Your task to perform on an android device: open app "Messages" (install if not already installed) and go to login screen Image 0: 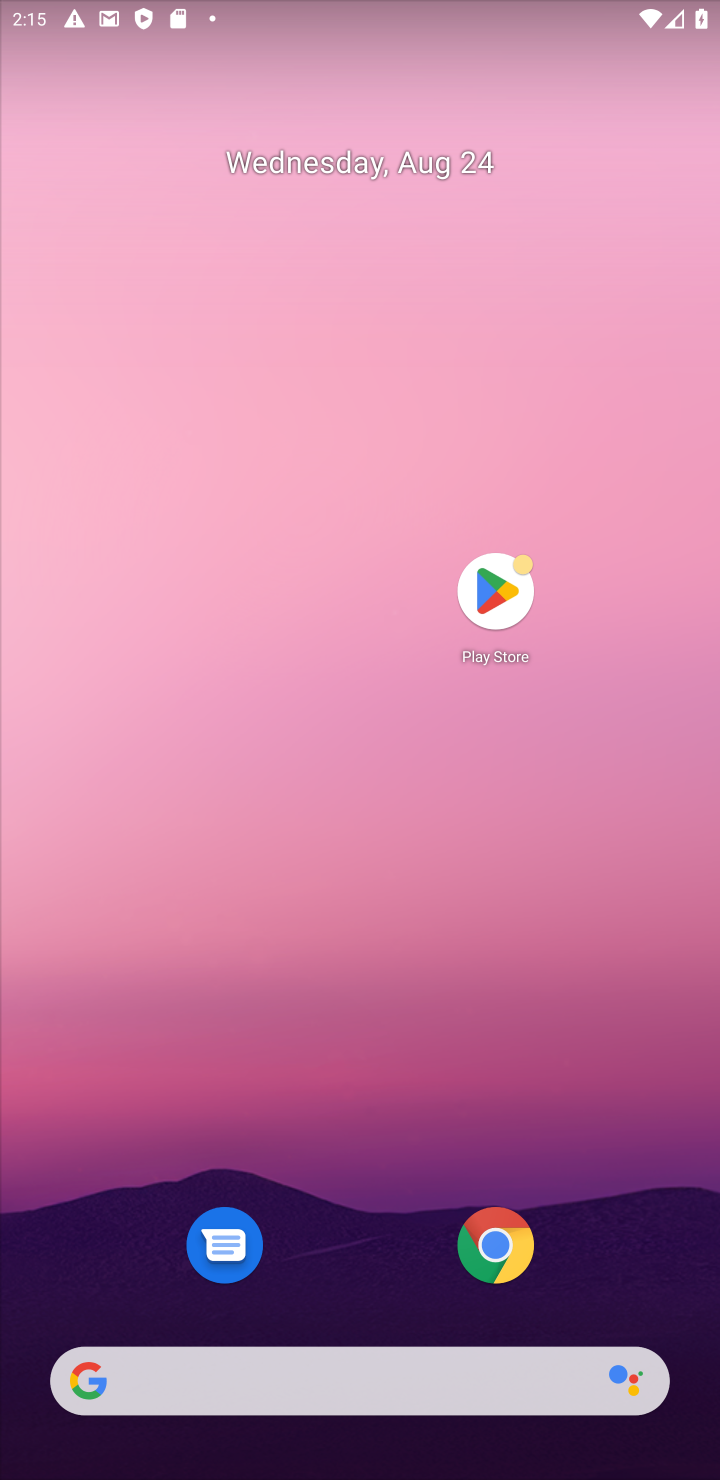
Step 0: click (475, 592)
Your task to perform on an android device: open app "Messages" (install if not already installed) and go to login screen Image 1: 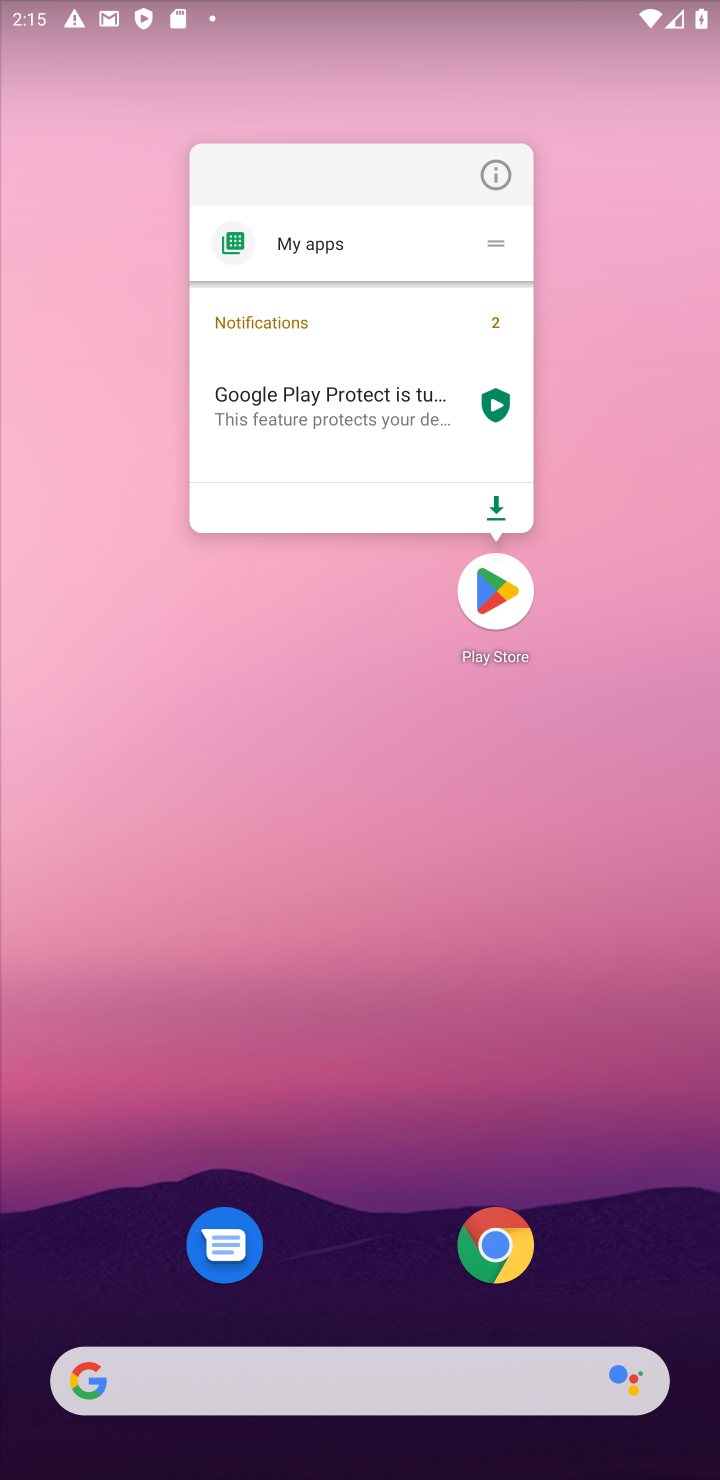
Step 1: click (495, 592)
Your task to perform on an android device: open app "Messages" (install if not already installed) and go to login screen Image 2: 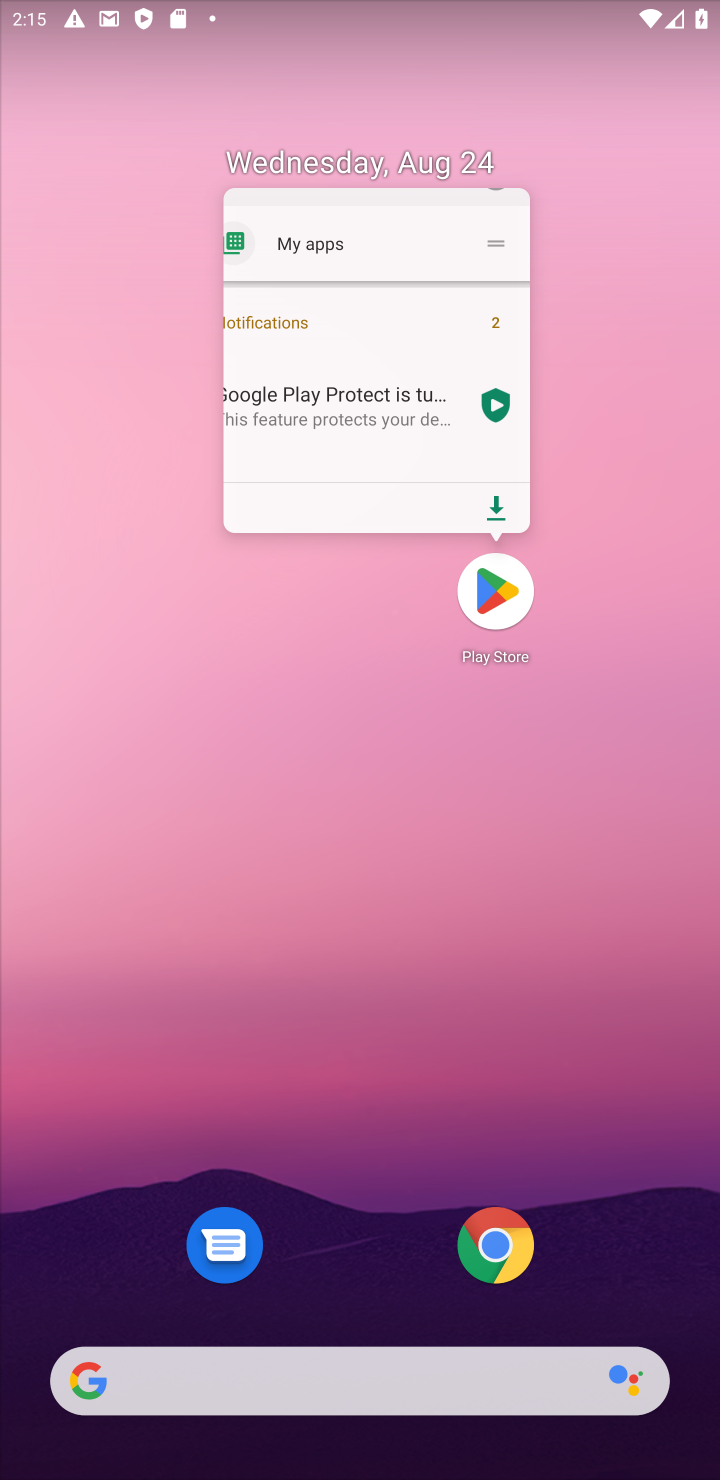
Step 2: click (495, 595)
Your task to perform on an android device: open app "Messages" (install if not already installed) and go to login screen Image 3: 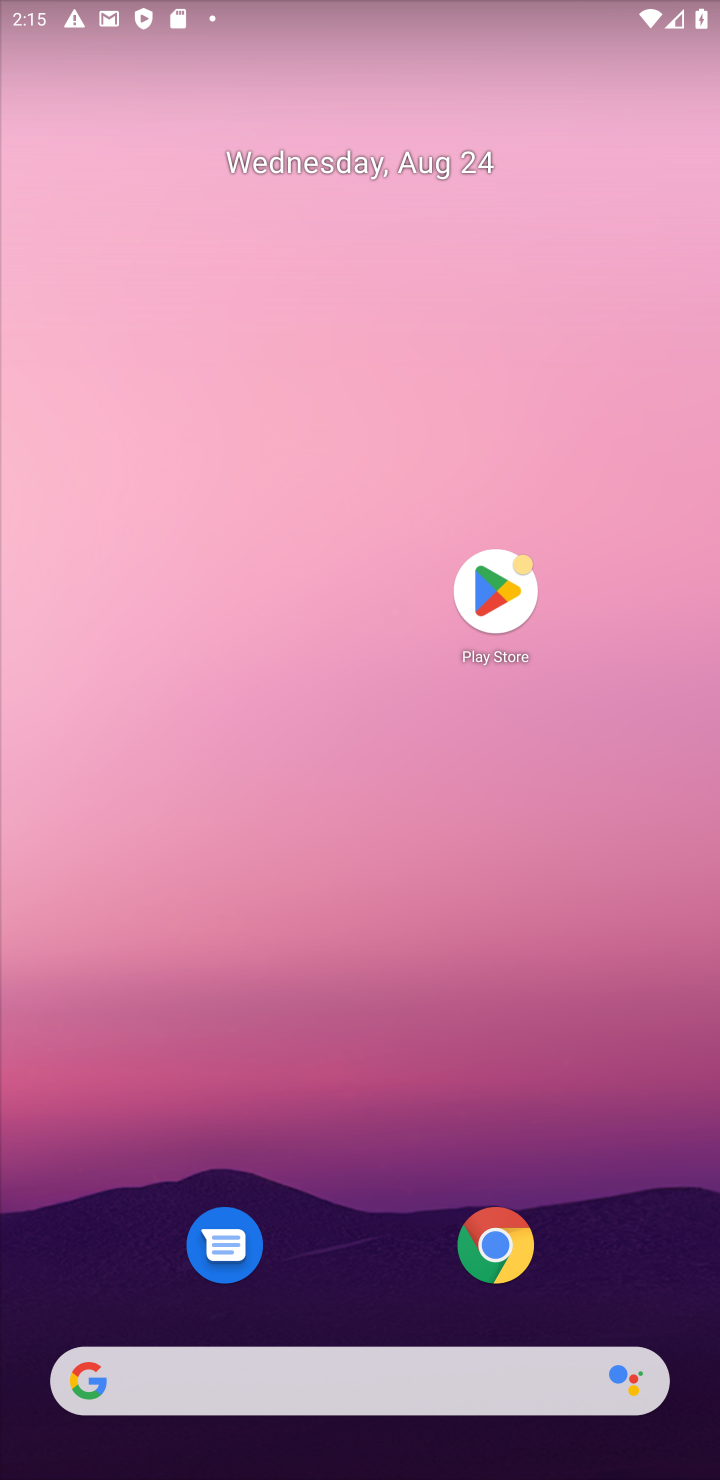
Step 3: click (495, 595)
Your task to perform on an android device: open app "Messages" (install if not already installed) and go to login screen Image 4: 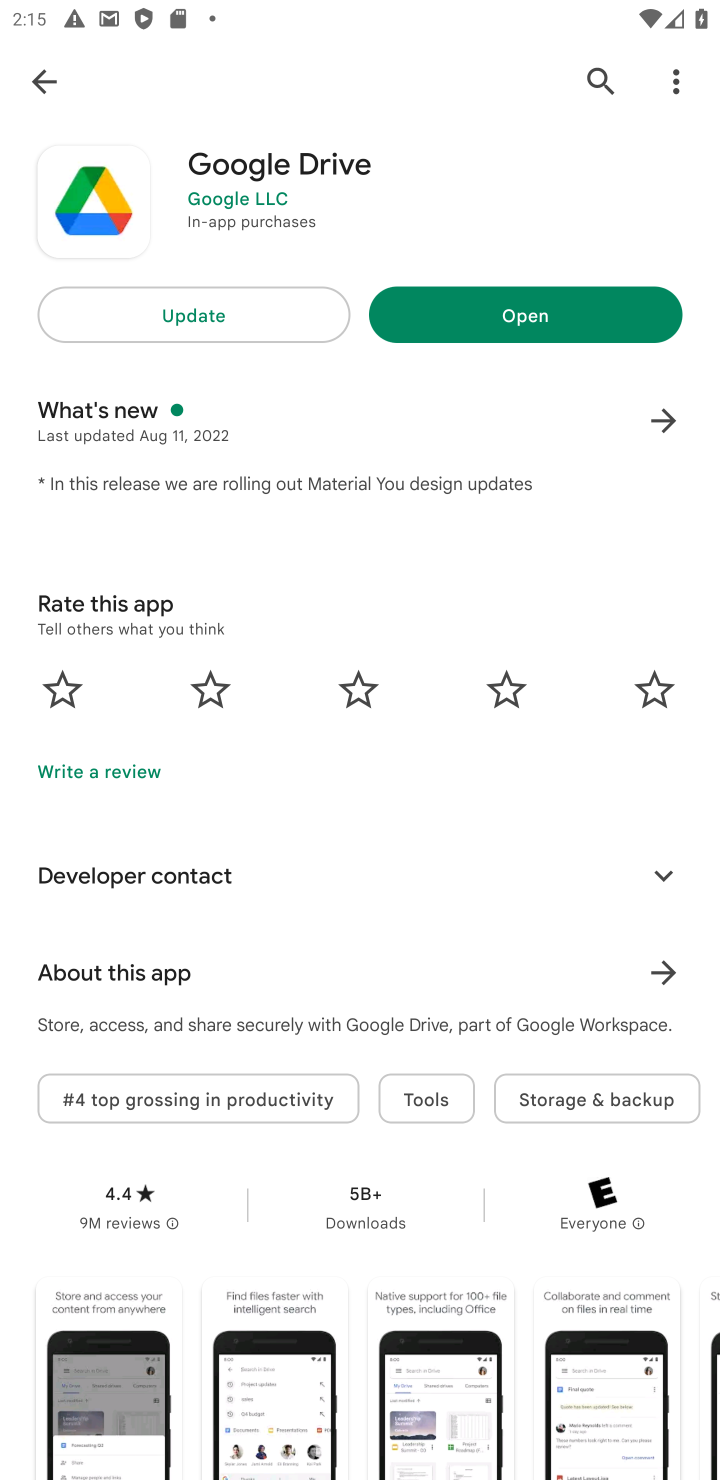
Step 4: click (602, 73)
Your task to perform on an android device: open app "Messages" (install if not already installed) and go to login screen Image 5: 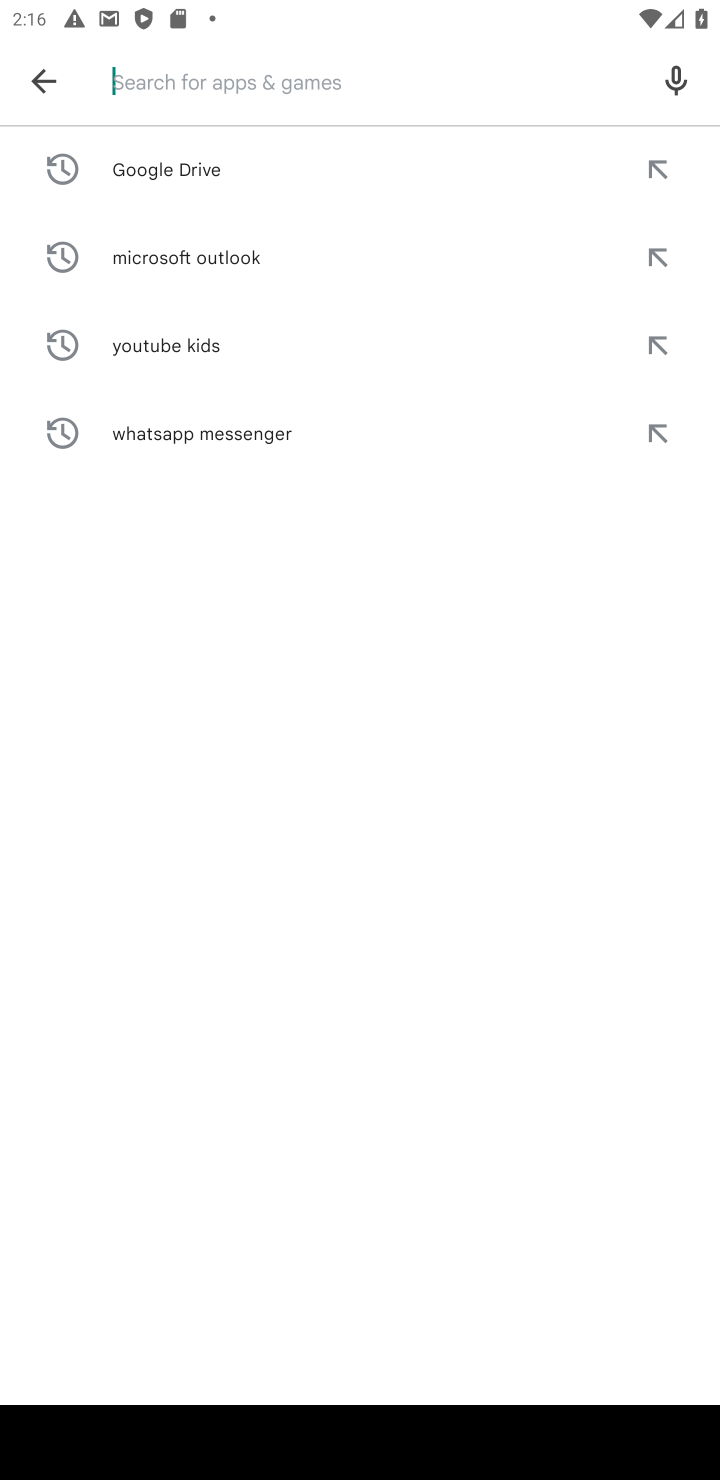
Step 5: type "Messages"
Your task to perform on an android device: open app "Messages" (install if not already installed) and go to login screen Image 6: 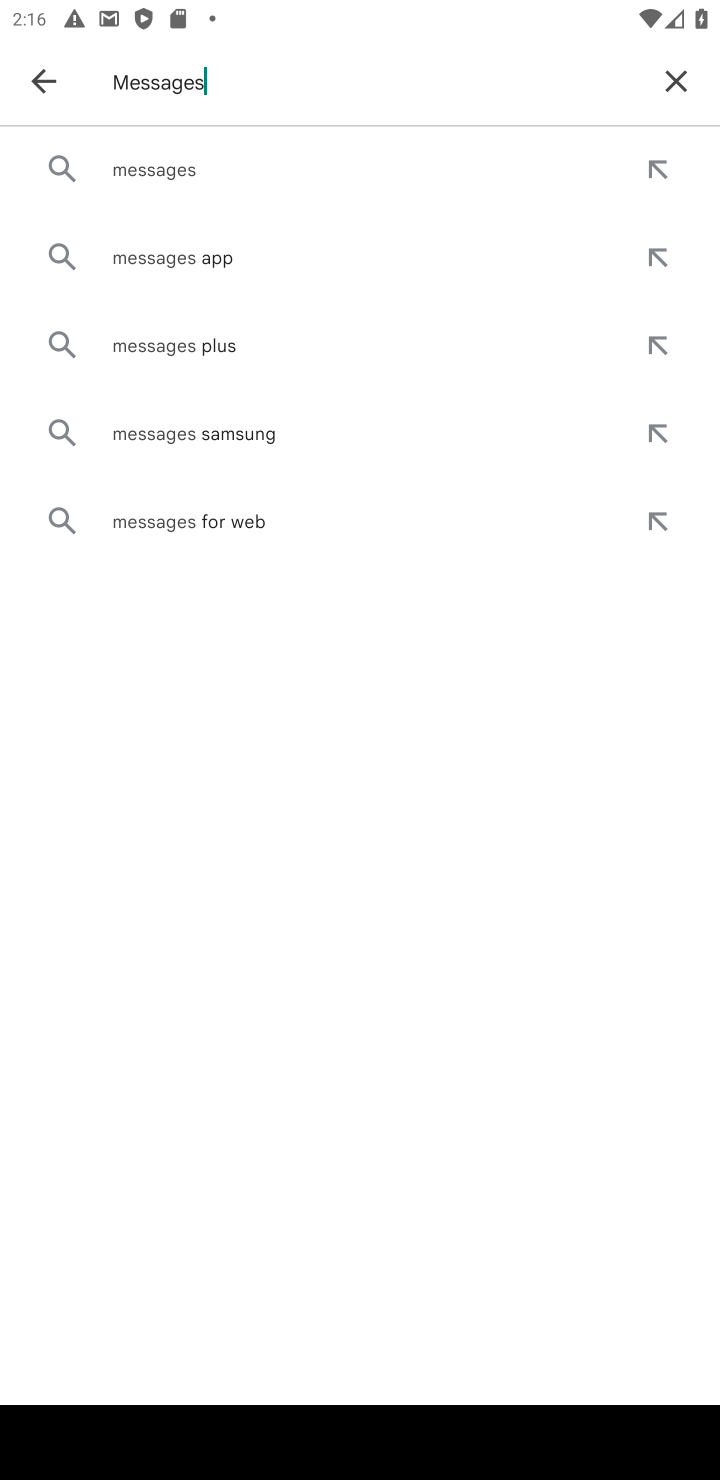
Step 6: click (190, 164)
Your task to perform on an android device: open app "Messages" (install if not already installed) and go to login screen Image 7: 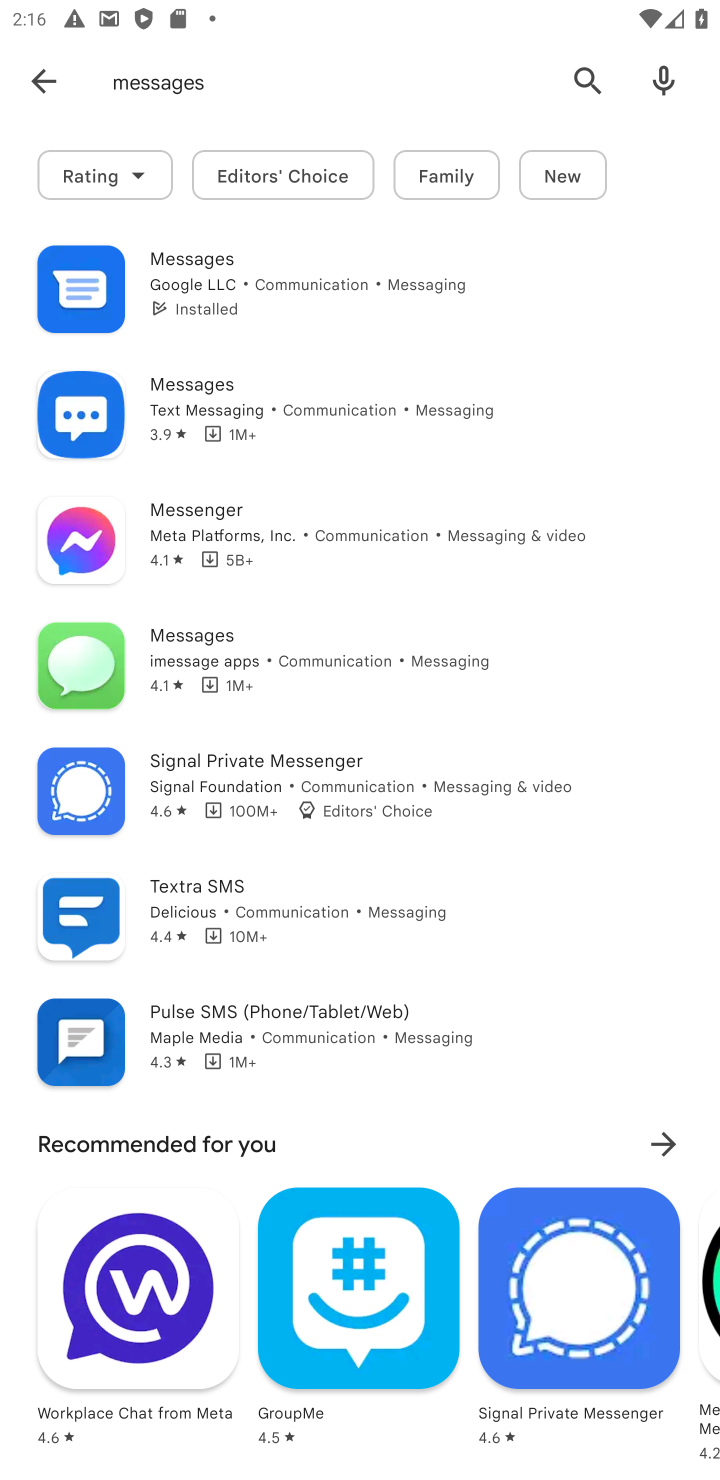
Step 7: click (222, 294)
Your task to perform on an android device: open app "Messages" (install if not already installed) and go to login screen Image 8: 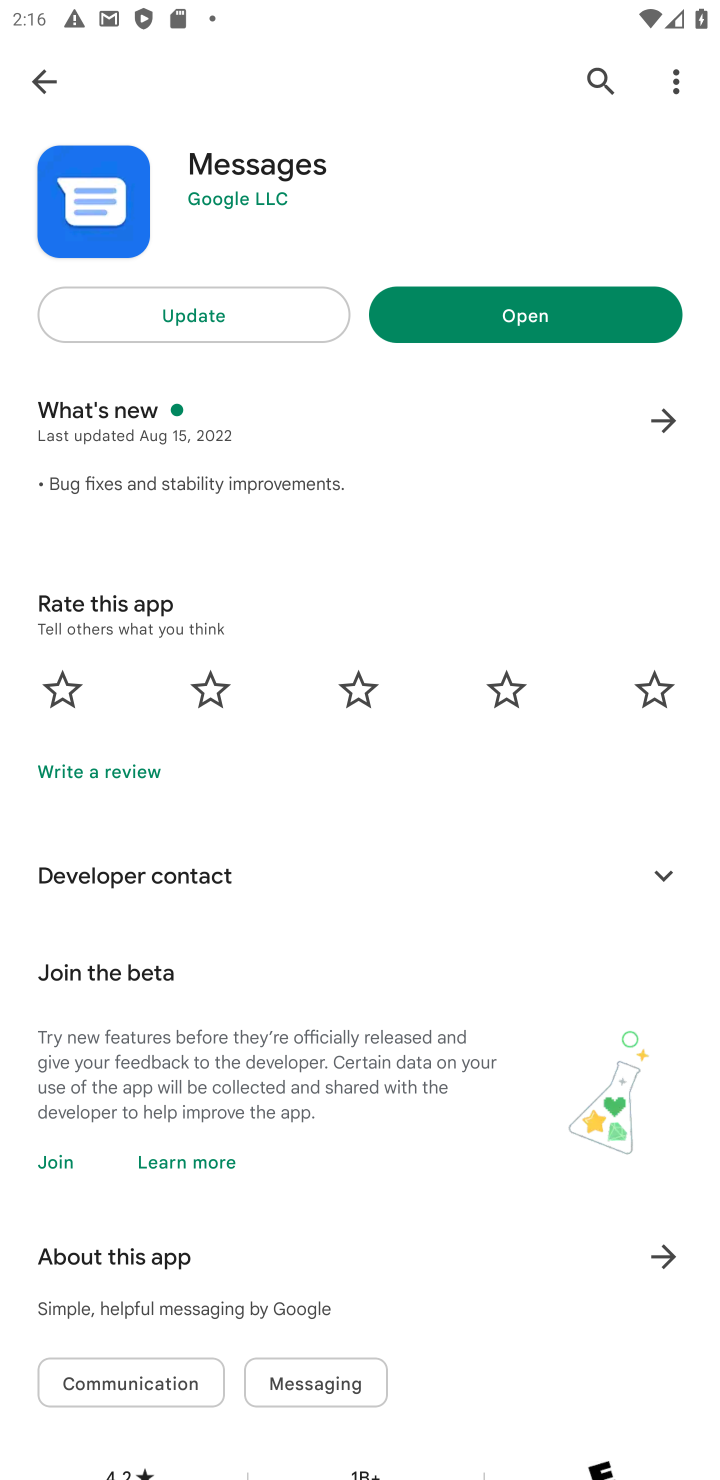
Step 8: click (477, 310)
Your task to perform on an android device: open app "Messages" (install if not already installed) and go to login screen Image 9: 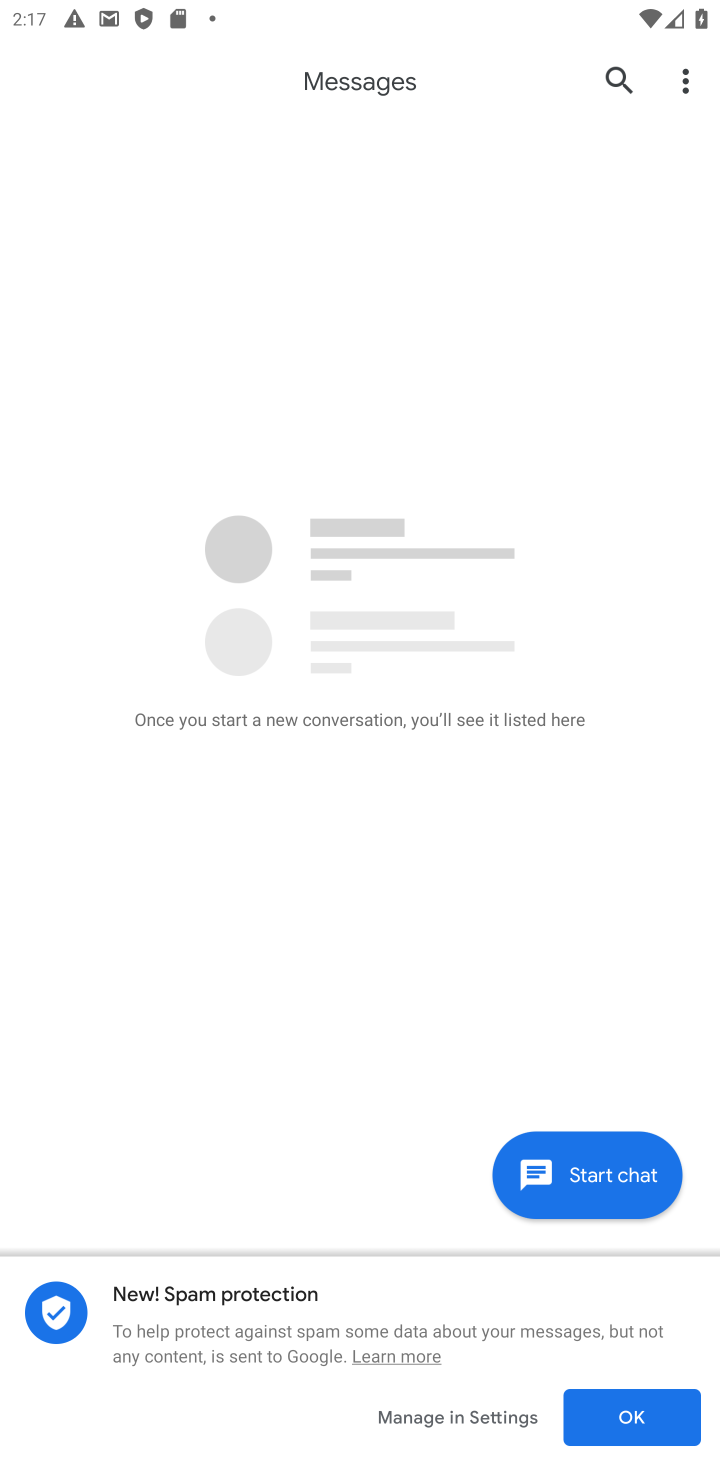
Step 9: task complete